Your task to perform on an android device: manage bookmarks in the chrome app Image 0: 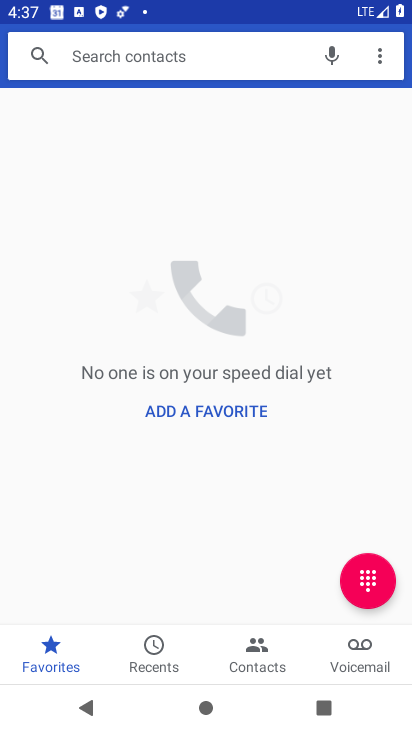
Step 0: press home button
Your task to perform on an android device: manage bookmarks in the chrome app Image 1: 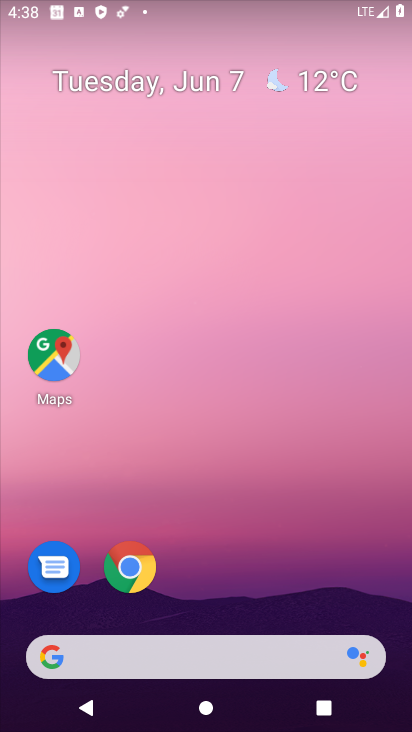
Step 1: drag from (350, 426) to (339, 168)
Your task to perform on an android device: manage bookmarks in the chrome app Image 2: 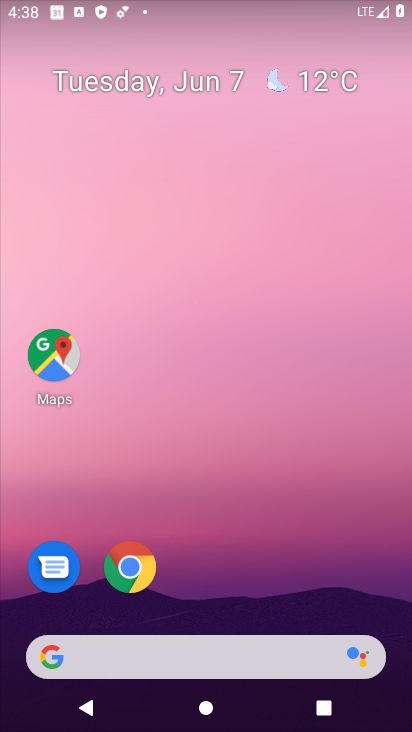
Step 2: drag from (315, 633) to (306, 96)
Your task to perform on an android device: manage bookmarks in the chrome app Image 3: 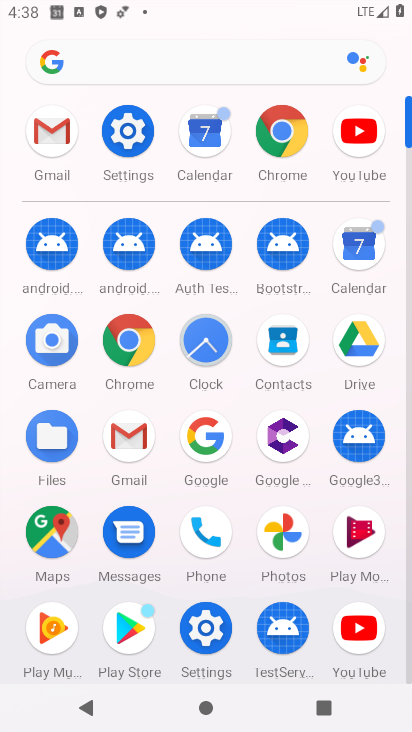
Step 3: click (136, 330)
Your task to perform on an android device: manage bookmarks in the chrome app Image 4: 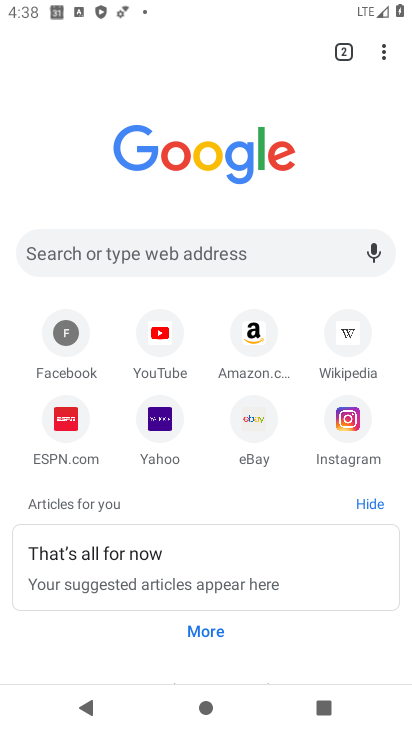
Step 4: task complete